Your task to perform on an android device: manage bookmarks in the chrome app Image 0: 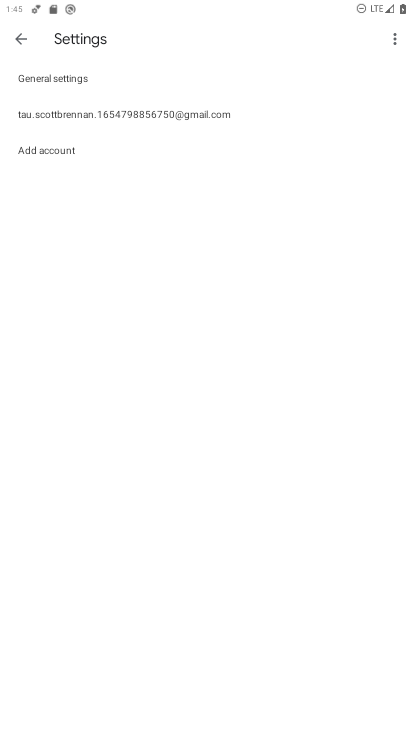
Step 0: press home button
Your task to perform on an android device: manage bookmarks in the chrome app Image 1: 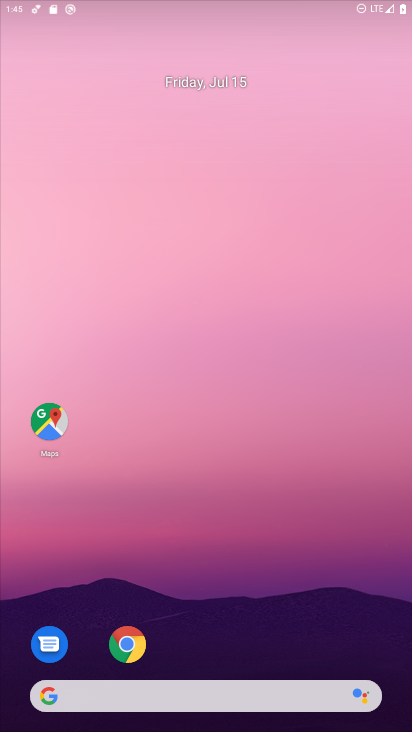
Step 1: drag from (107, 540) to (409, 100)
Your task to perform on an android device: manage bookmarks in the chrome app Image 2: 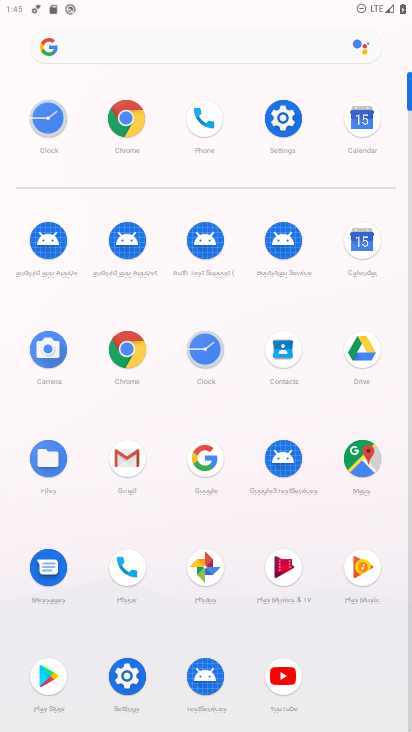
Step 2: click (125, 120)
Your task to perform on an android device: manage bookmarks in the chrome app Image 3: 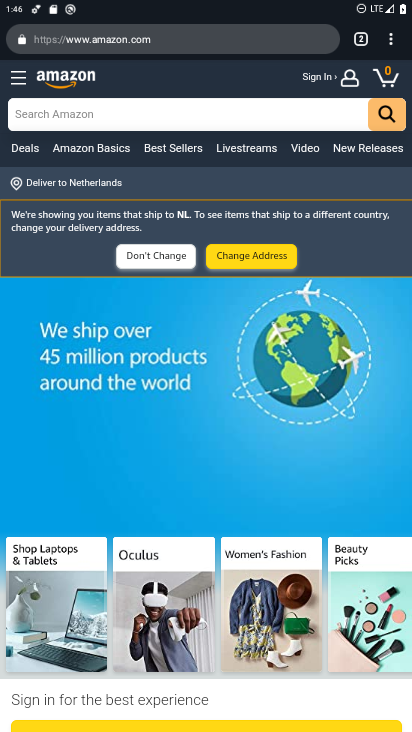
Step 3: click (389, 43)
Your task to perform on an android device: manage bookmarks in the chrome app Image 4: 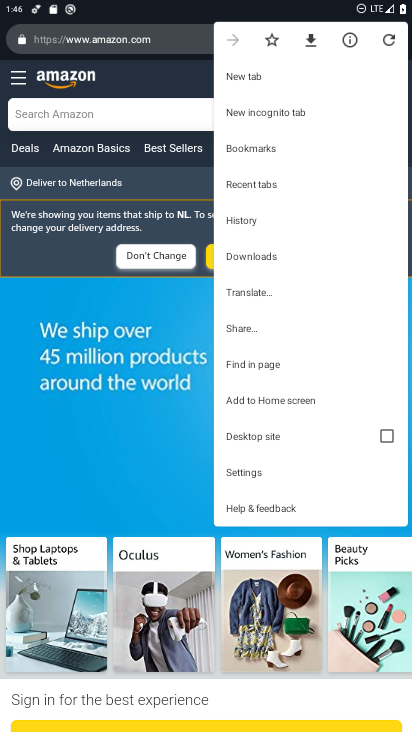
Step 4: click (284, 147)
Your task to perform on an android device: manage bookmarks in the chrome app Image 5: 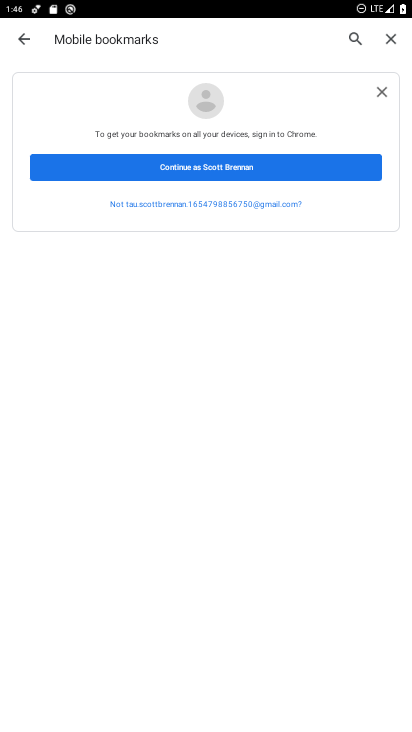
Step 5: task complete